Your task to perform on an android device: check out phone information Image 0: 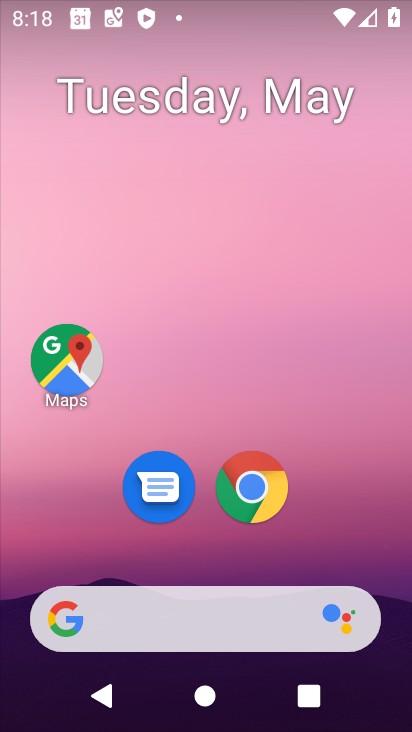
Step 0: drag from (359, 543) to (372, 156)
Your task to perform on an android device: check out phone information Image 1: 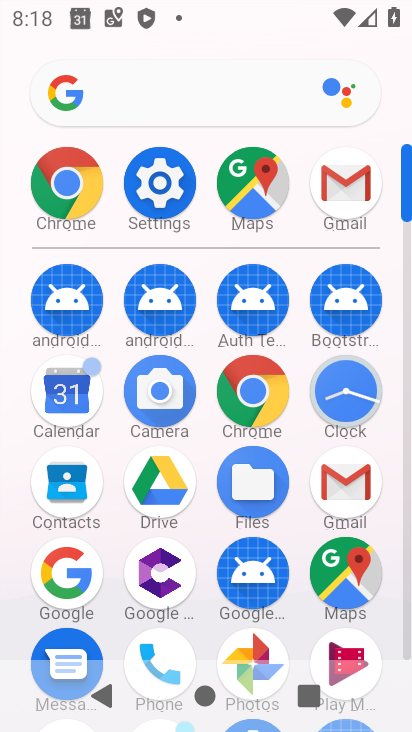
Step 1: drag from (382, 551) to (384, 286)
Your task to perform on an android device: check out phone information Image 2: 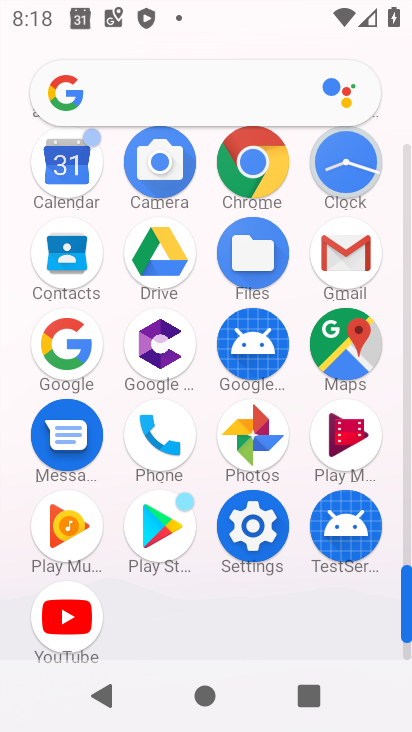
Step 2: click (160, 432)
Your task to perform on an android device: check out phone information Image 3: 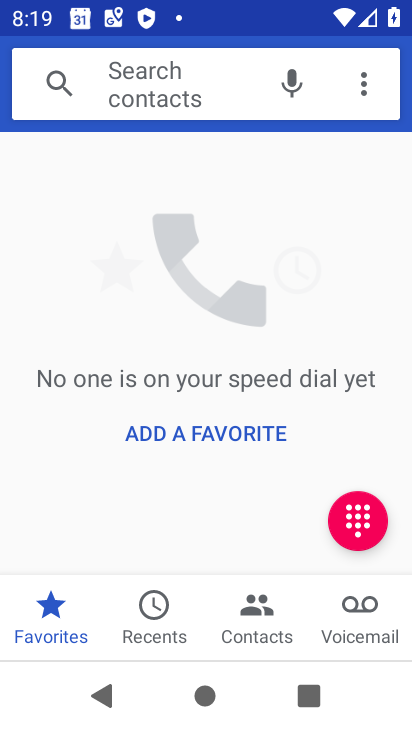
Step 3: task complete